Your task to perform on an android device: empty trash in google photos Image 0: 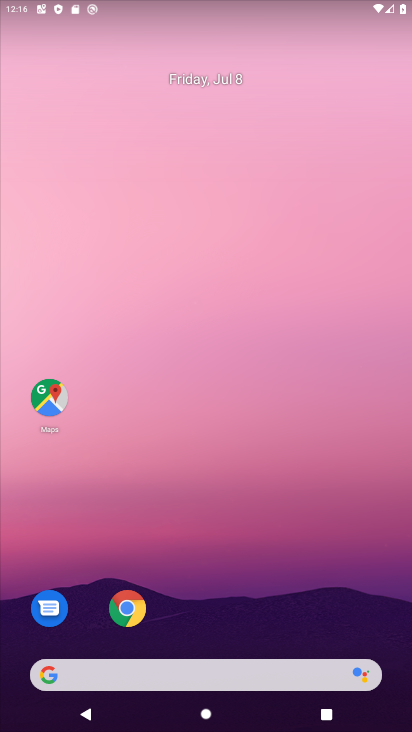
Step 0: drag from (13, 715) to (178, 159)
Your task to perform on an android device: empty trash in google photos Image 1: 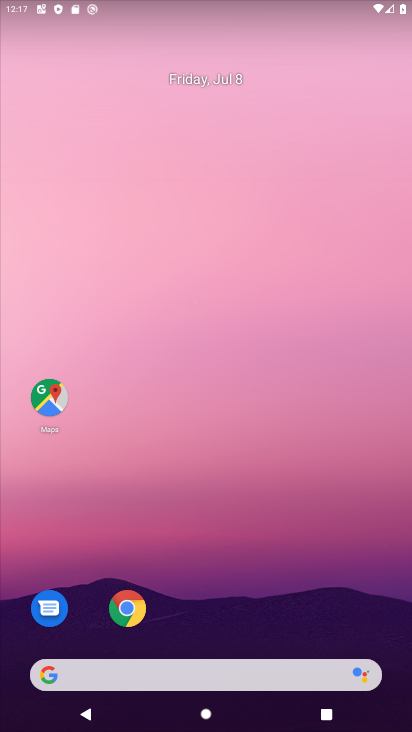
Step 1: drag from (169, 395) to (283, 111)
Your task to perform on an android device: empty trash in google photos Image 2: 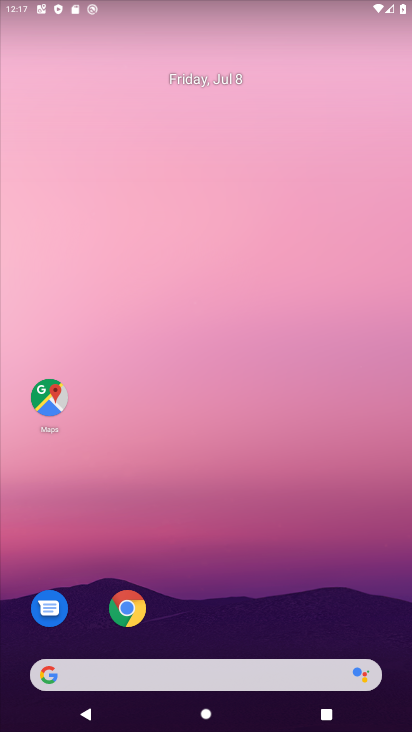
Step 2: drag from (83, 600) to (360, 107)
Your task to perform on an android device: empty trash in google photos Image 3: 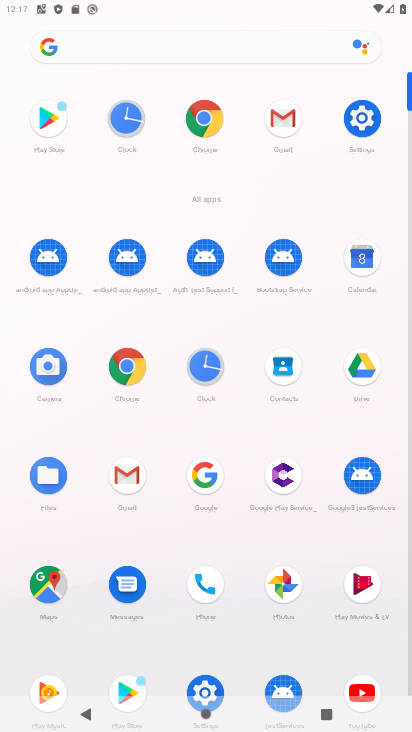
Step 3: click (282, 586)
Your task to perform on an android device: empty trash in google photos Image 4: 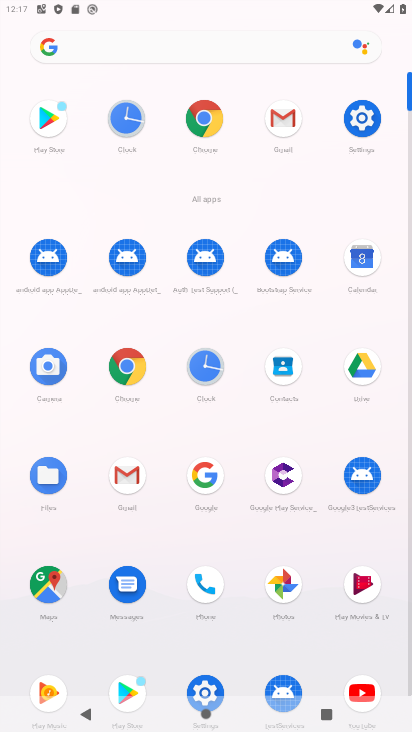
Step 4: click (282, 586)
Your task to perform on an android device: empty trash in google photos Image 5: 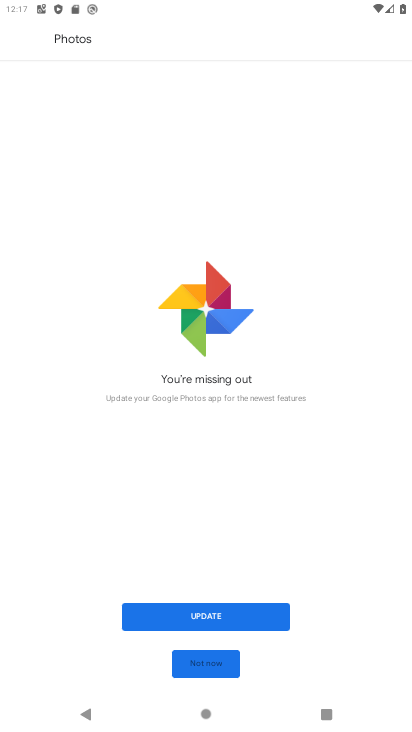
Step 5: click (199, 662)
Your task to perform on an android device: empty trash in google photos Image 6: 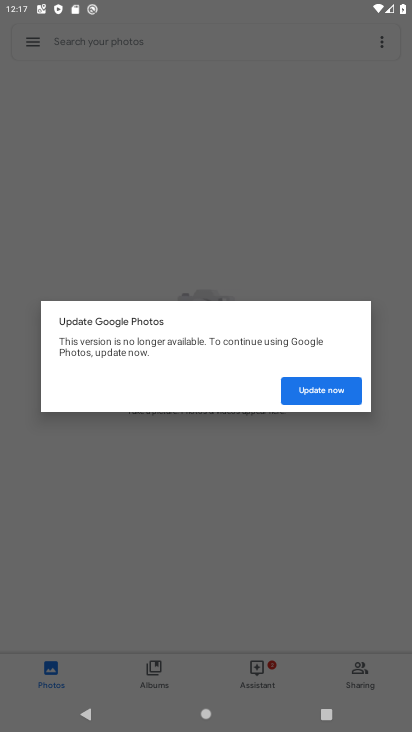
Step 6: click (317, 390)
Your task to perform on an android device: empty trash in google photos Image 7: 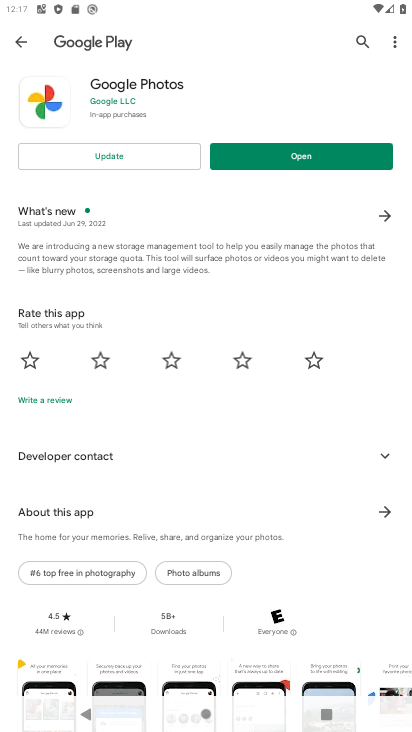
Step 7: click (299, 156)
Your task to perform on an android device: empty trash in google photos Image 8: 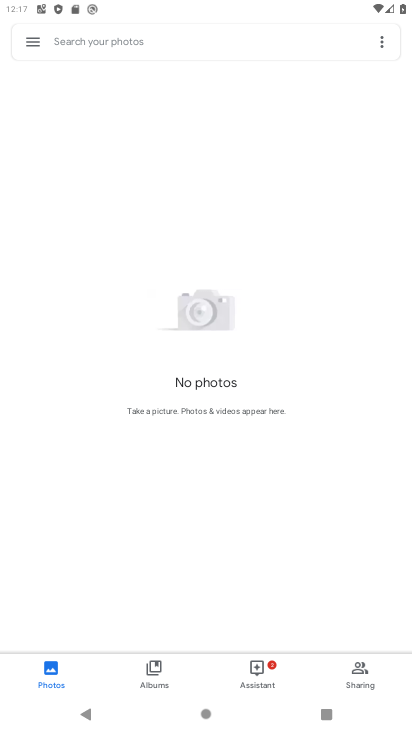
Step 8: click (28, 35)
Your task to perform on an android device: empty trash in google photos Image 9: 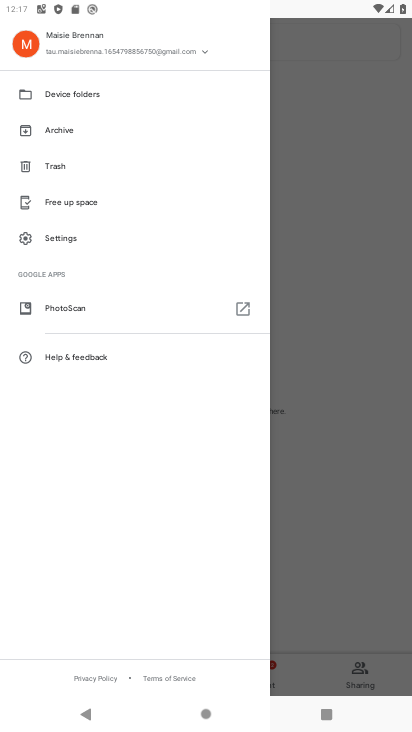
Step 9: click (94, 168)
Your task to perform on an android device: empty trash in google photos Image 10: 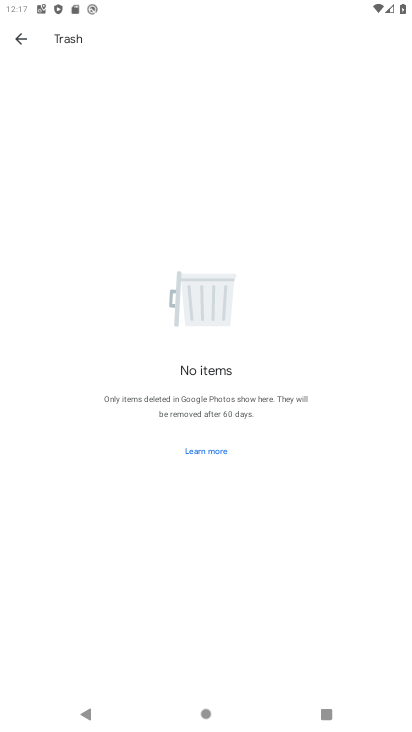
Step 10: task complete